Your task to perform on an android device: Is it going to rain today? Image 0: 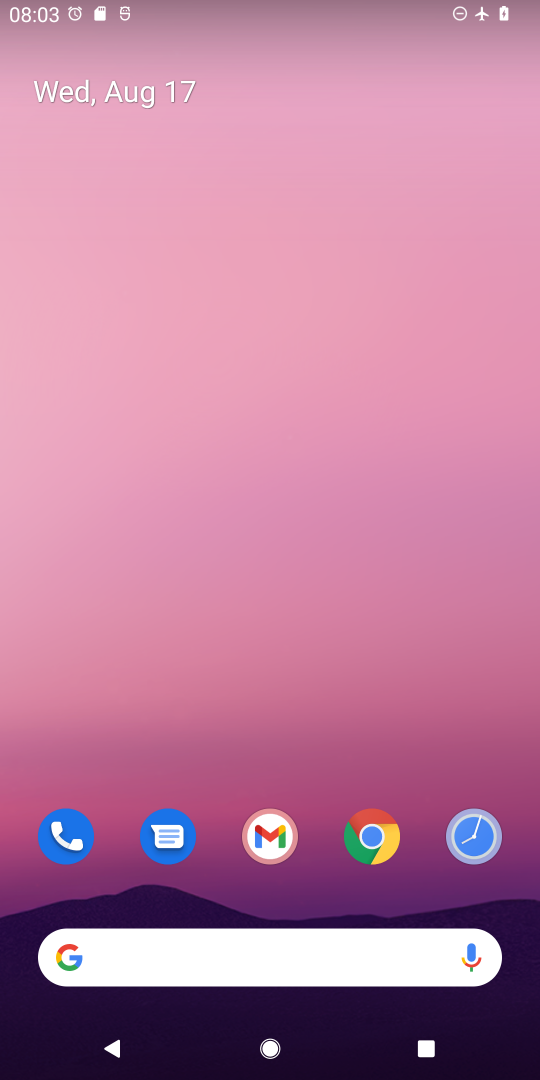
Step 0: drag from (367, 429) to (394, 295)
Your task to perform on an android device: Is it going to rain today? Image 1: 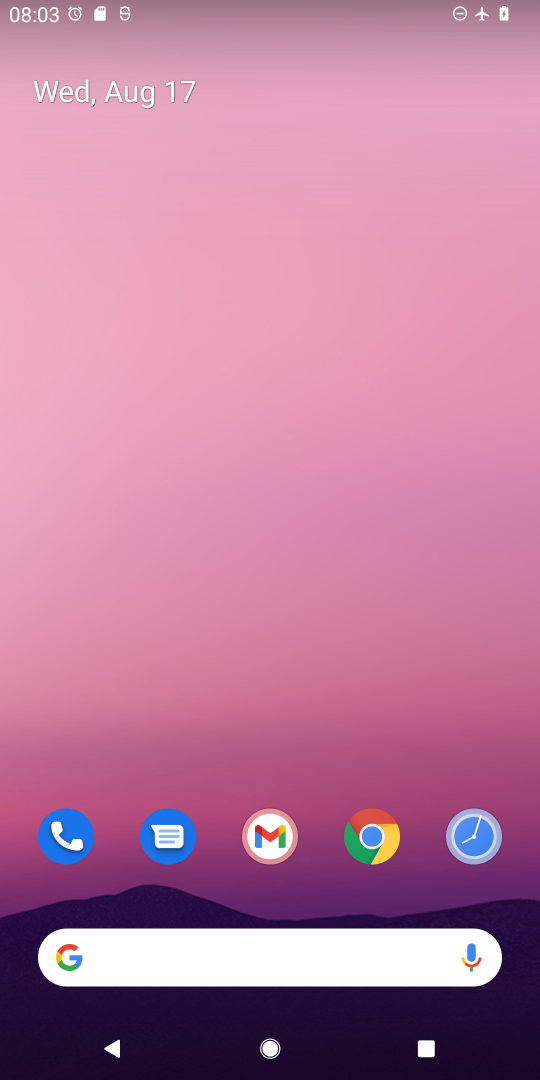
Step 1: click (362, 848)
Your task to perform on an android device: Is it going to rain today? Image 2: 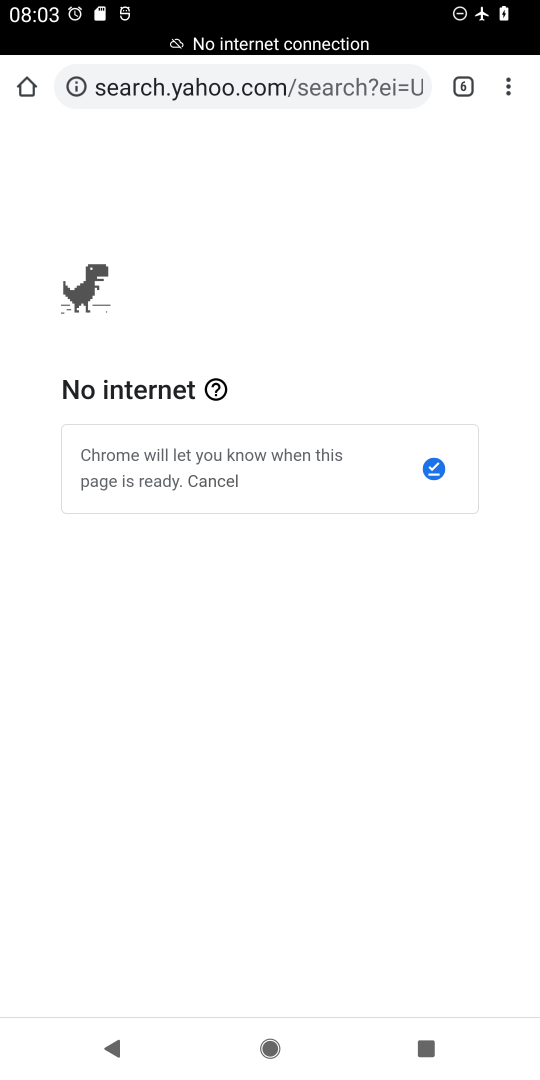
Step 2: click (506, 77)
Your task to perform on an android device: Is it going to rain today? Image 3: 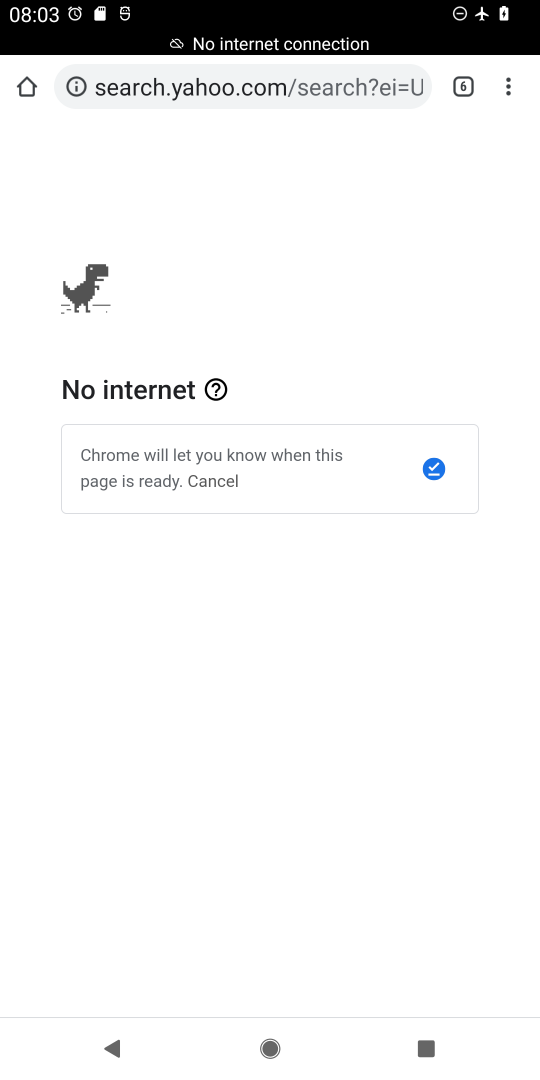
Step 3: click (515, 87)
Your task to perform on an android device: Is it going to rain today? Image 4: 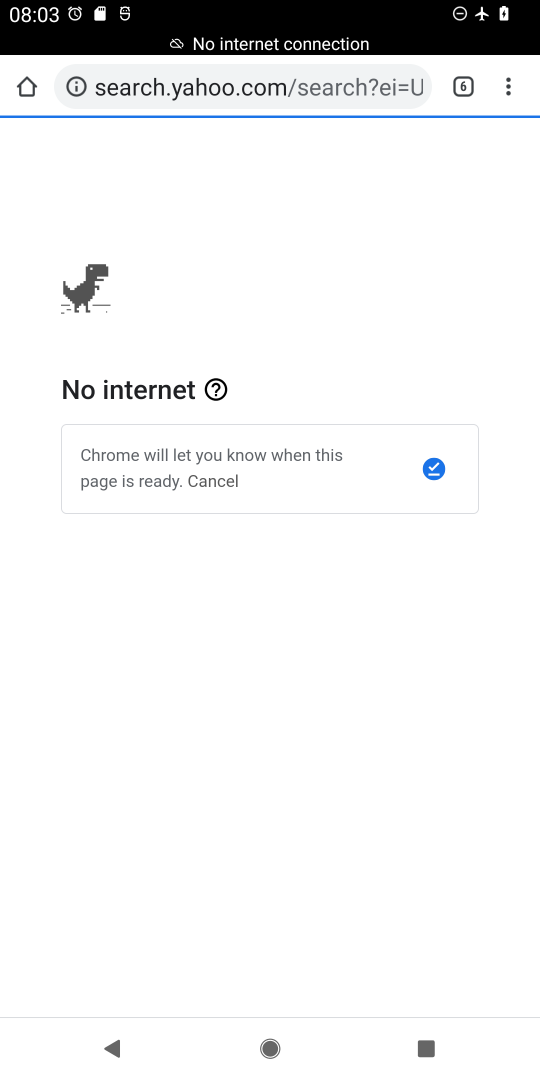
Step 4: click (317, 227)
Your task to perform on an android device: Is it going to rain today? Image 5: 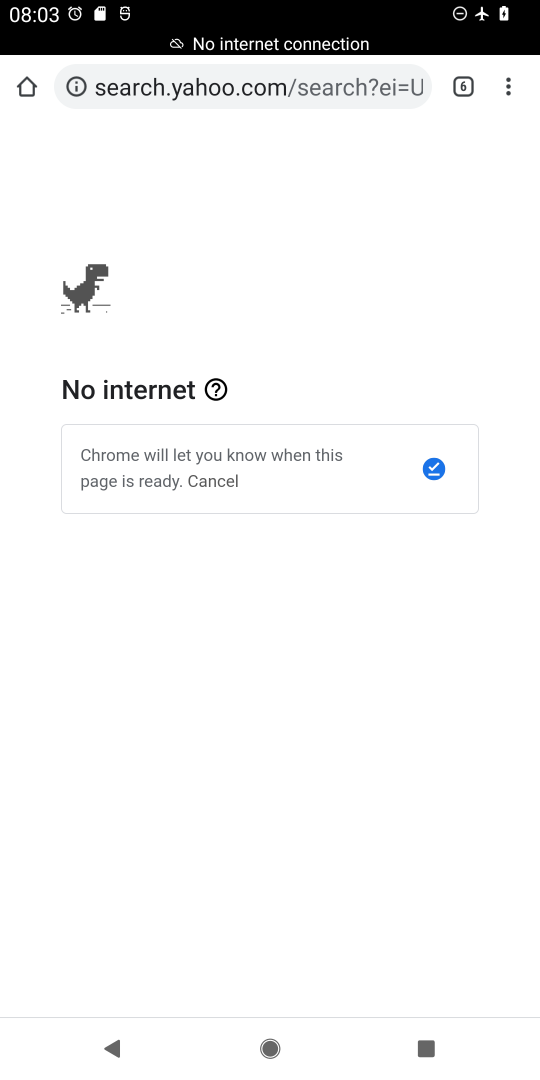
Step 5: click (526, 78)
Your task to perform on an android device: Is it going to rain today? Image 6: 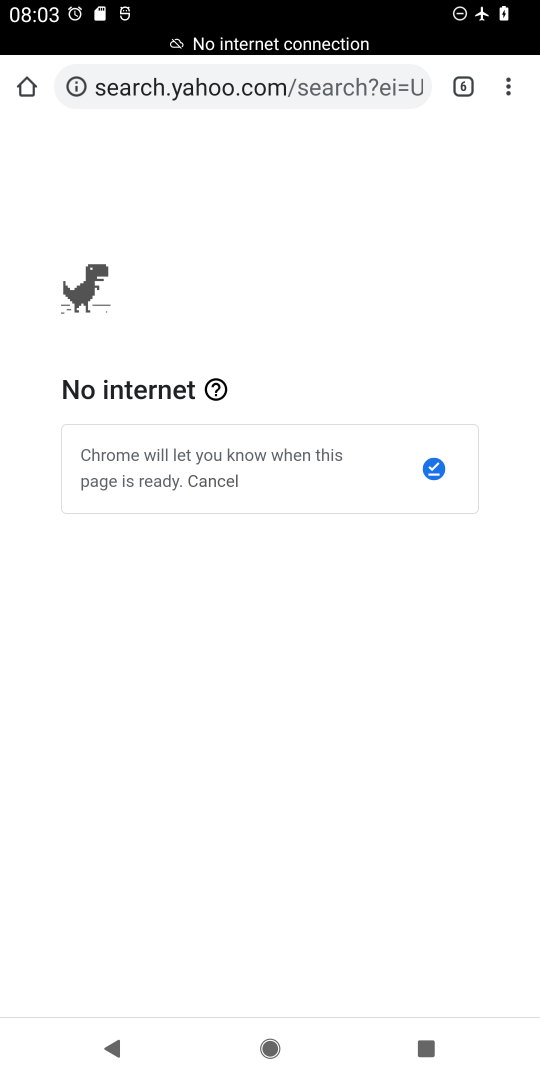
Step 6: click (331, 229)
Your task to perform on an android device: Is it going to rain today? Image 7: 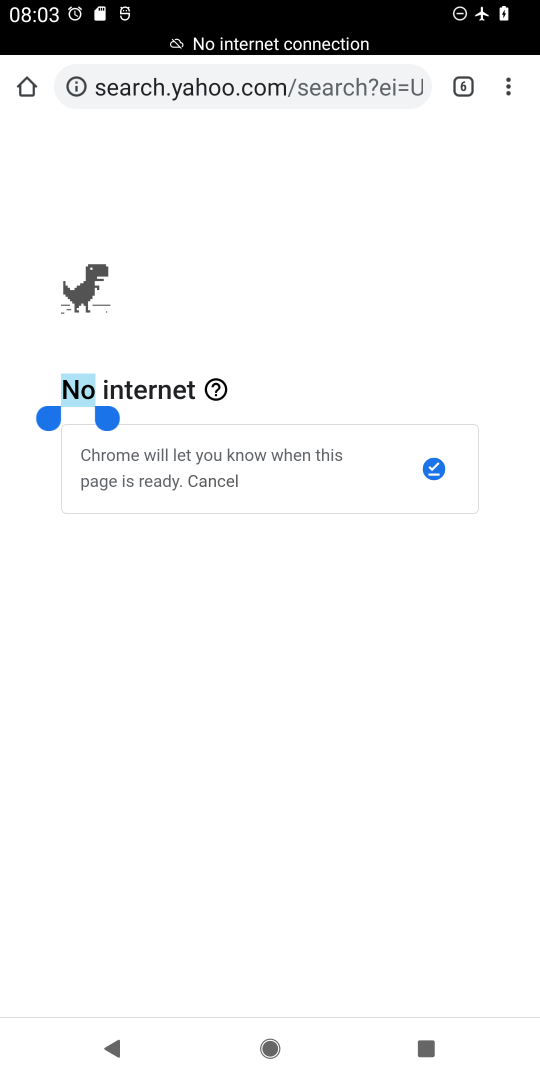
Step 7: click (516, 87)
Your task to perform on an android device: Is it going to rain today? Image 8: 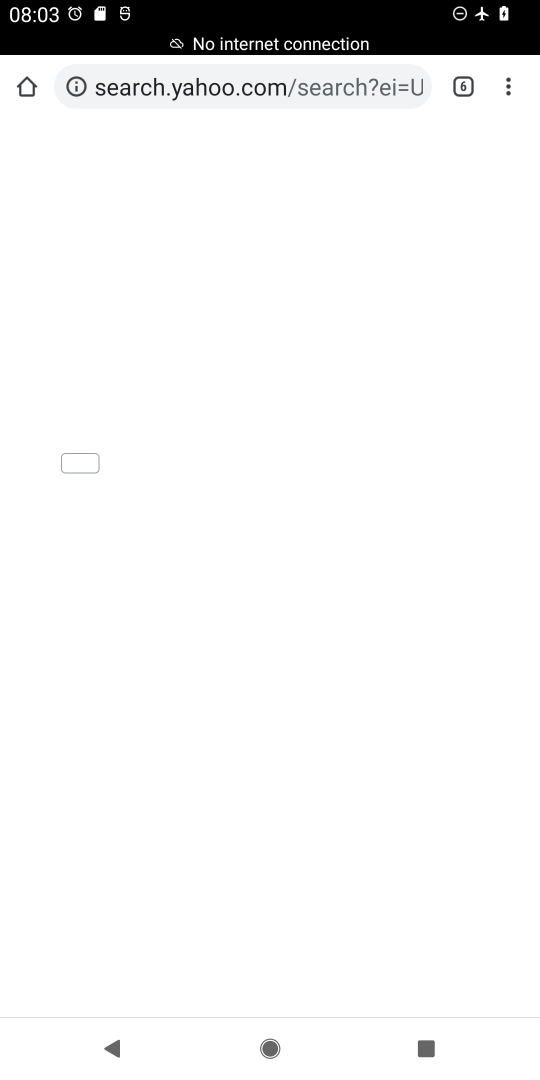
Step 8: click (328, 218)
Your task to perform on an android device: Is it going to rain today? Image 9: 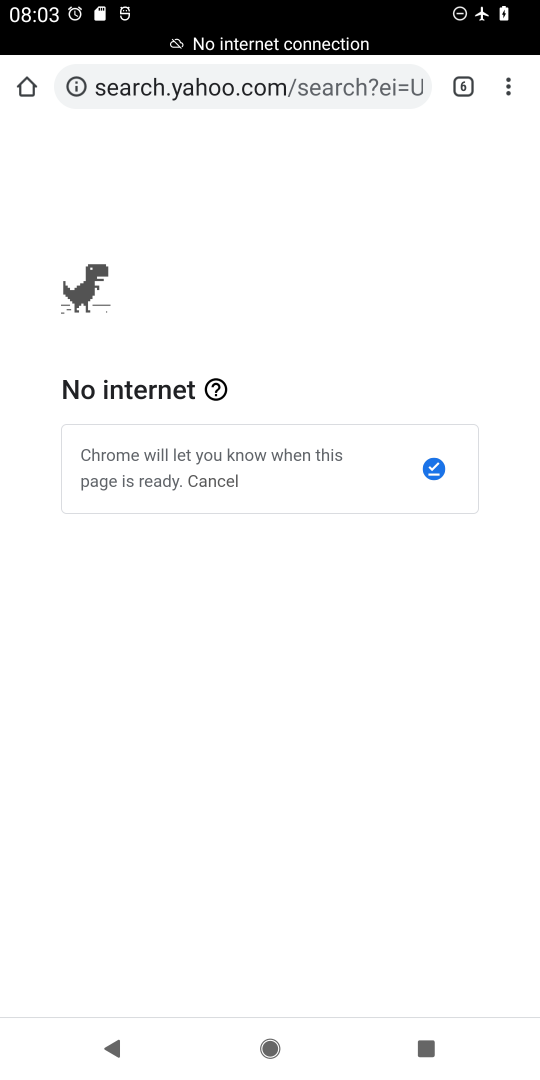
Step 9: click (526, 80)
Your task to perform on an android device: Is it going to rain today? Image 10: 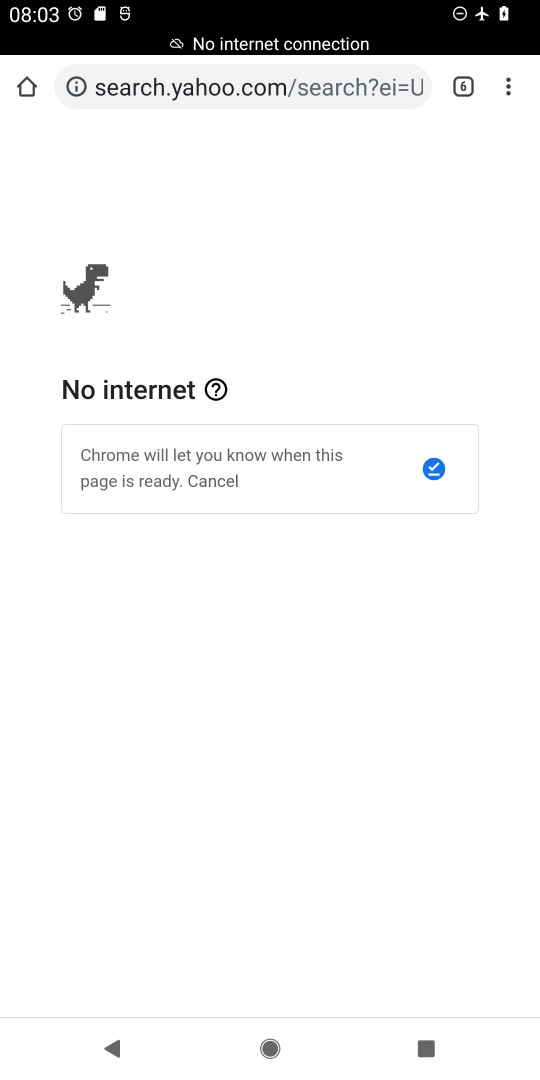
Step 10: click (515, 84)
Your task to perform on an android device: Is it going to rain today? Image 11: 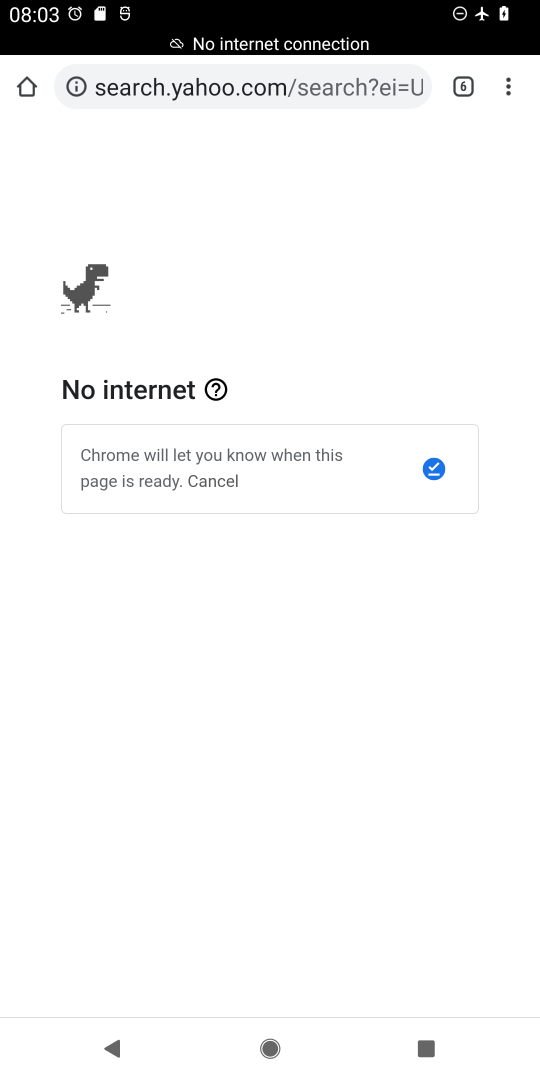
Step 11: click (507, 80)
Your task to perform on an android device: Is it going to rain today? Image 12: 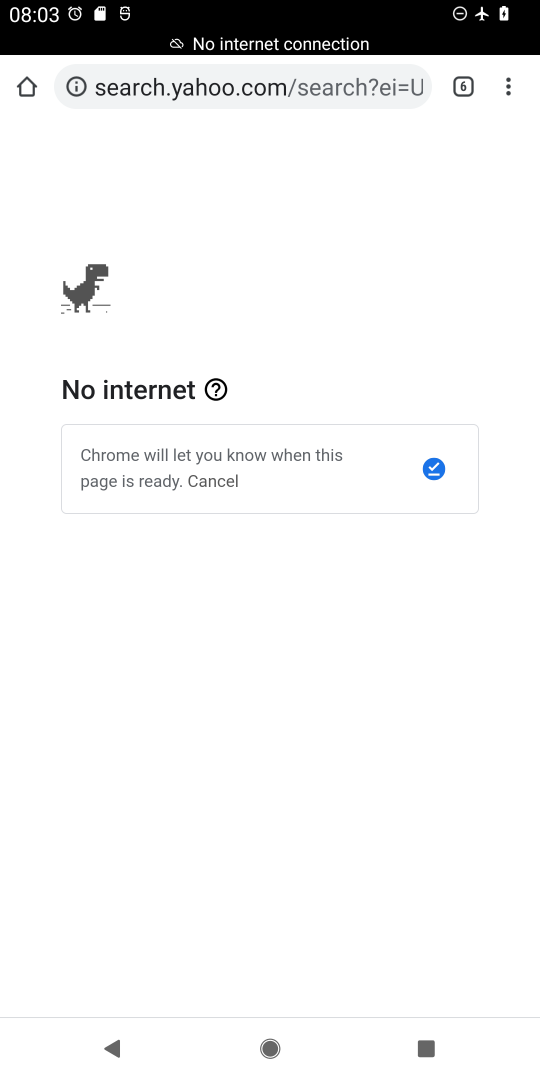
Step 12: click (499, 80)
Your task to perform on an android device: Is it going to rain today? Image 13: 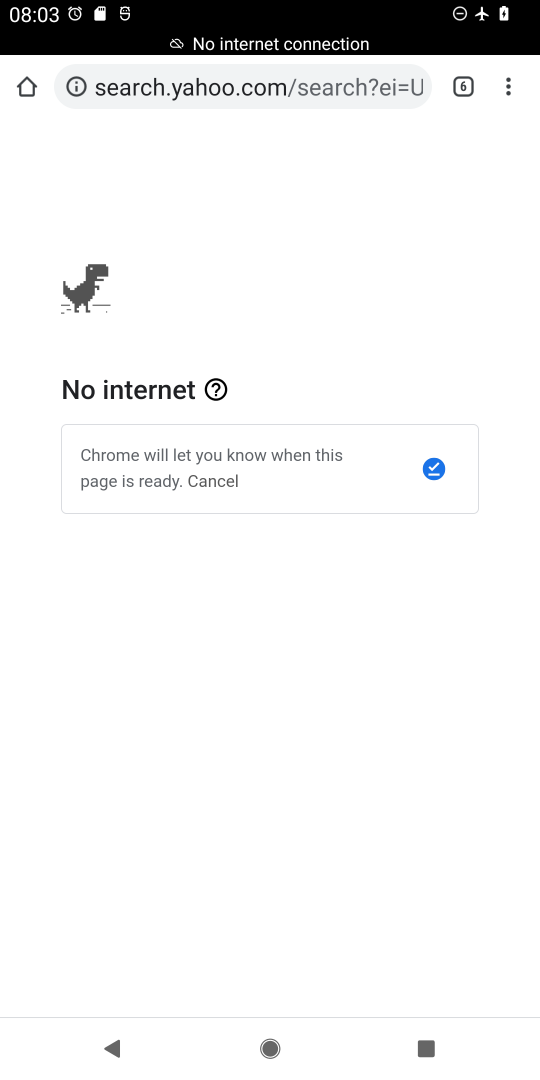
Step 13: click (458, 87)
Your task to perform on an android device: Is it going to rain today? Image 14: 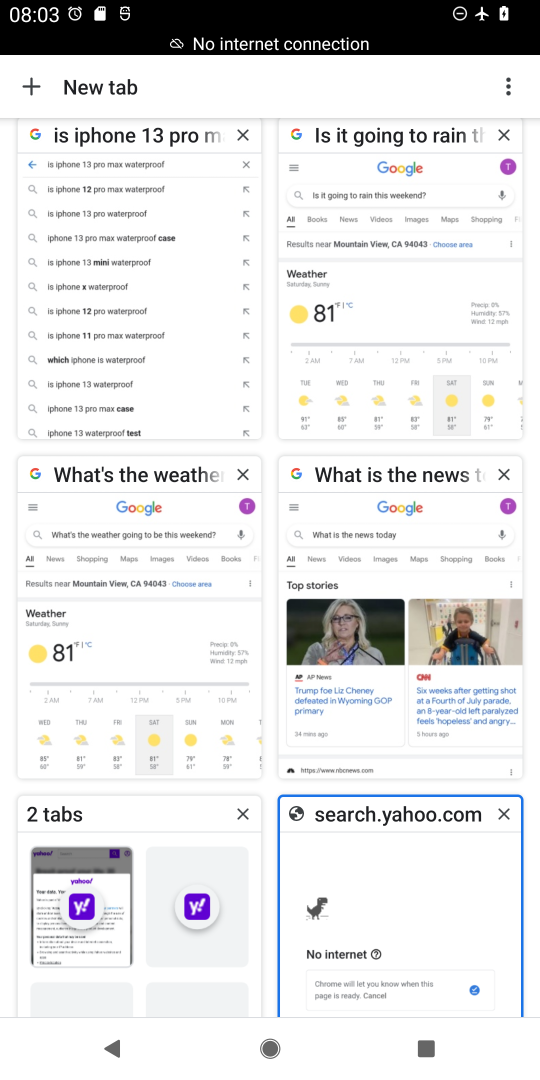
Step 14: click (42, 92)
Your task to perform on an android device: Is it going to rain today? Image 15: 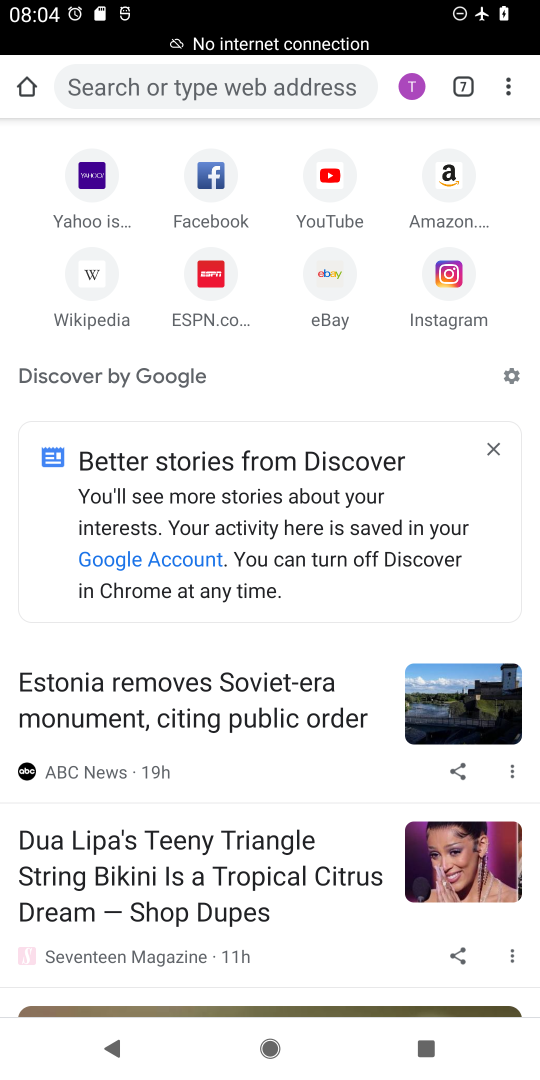
Step 15: click (238, 75)
Your task to perform on an android device: Is it going to rain today? Image 16: 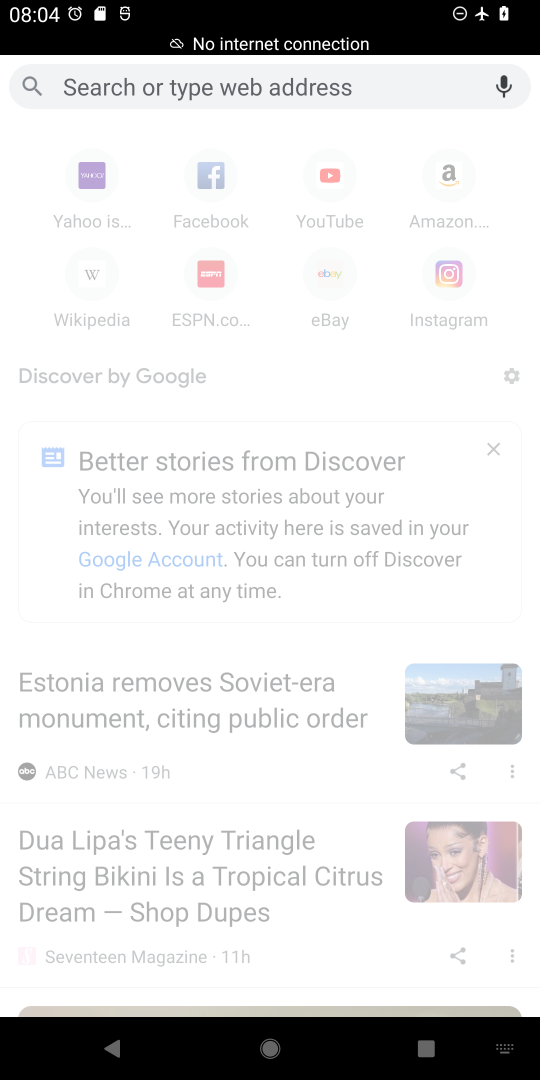
Step 16: type "Is it going to rain today? "
Your task to perform on an android device: Is it going to rain today? Image 17: 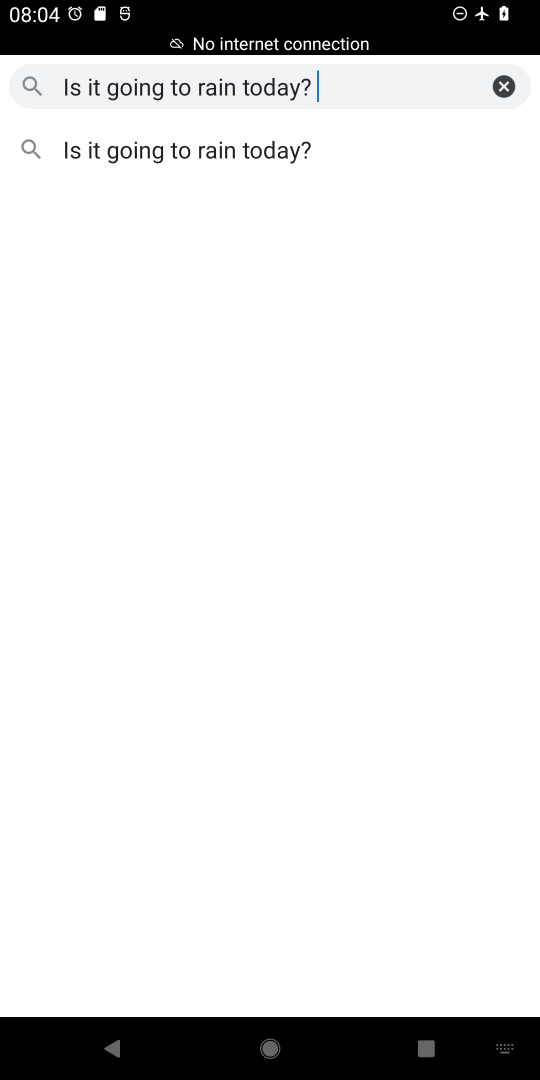
Step 17: click (237, 144)
Your task to perform on an android device: Is it going to rain today? Image 18: 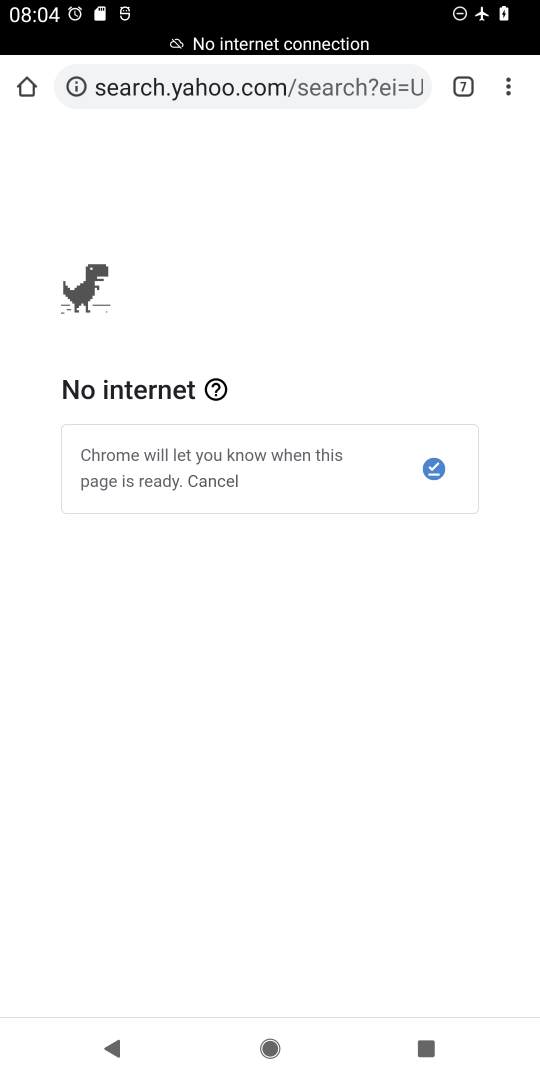
Step 18: task complete